Your task to perform on an android device: Set the phone to "Do not disturb". Image 0: 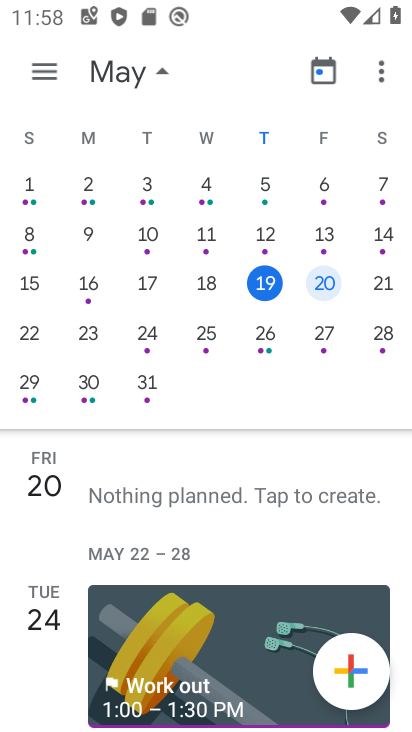
Step 0: press home button
Your task to perform on an android device: Set the phone to "Do not disturb". Image 1: 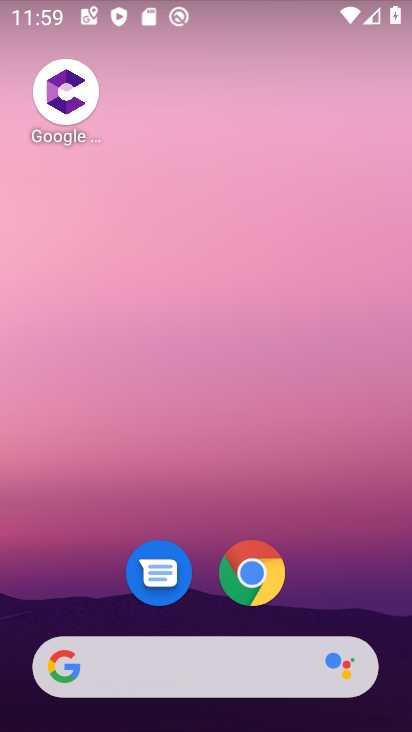
Step 1: drag from (224, 724) to (204, 242)
Your task to perform on an android device: Set the phone to "Do not disturb". Image 2: 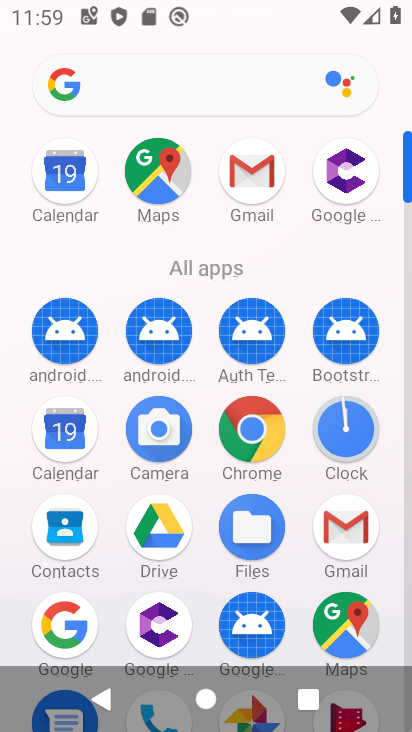
Step 2: drag from (194, 533) to (195, 251)
Your task to perform on an android device: Set the phone to "Do not disturb". Image 3: 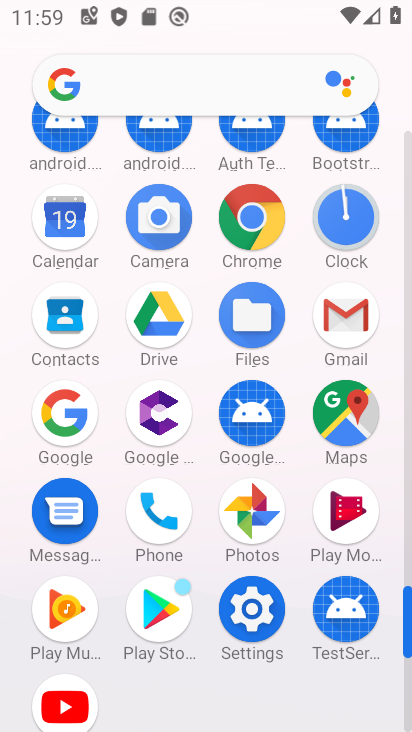
Step 3: click (242, 606)
Your task to perform on an android device: Set the phone to "Do not disturb". Image 4: 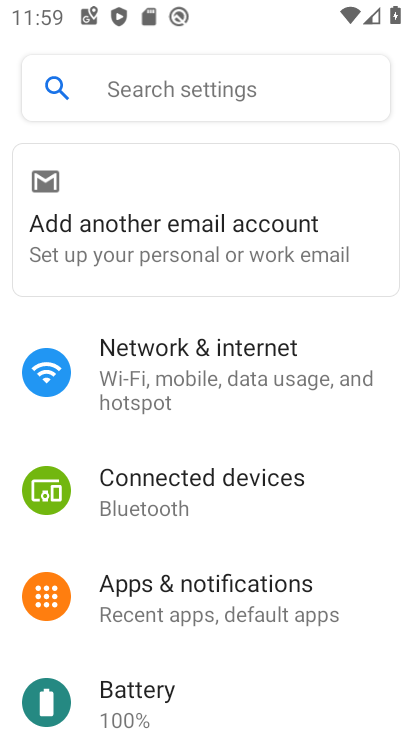
Step 4: drag from (211, 692) to (178, 294)
Your task to perform on an android device: Set the phone to "Do not disturb". Image 5: 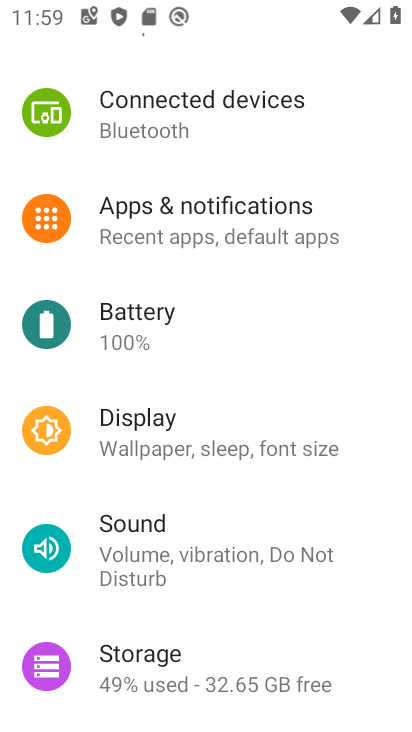
Step 5: drag from (165, 647) to (159, 394)
Your task to perform on an android device: Set the phone to "Do not disturb". Image 6: 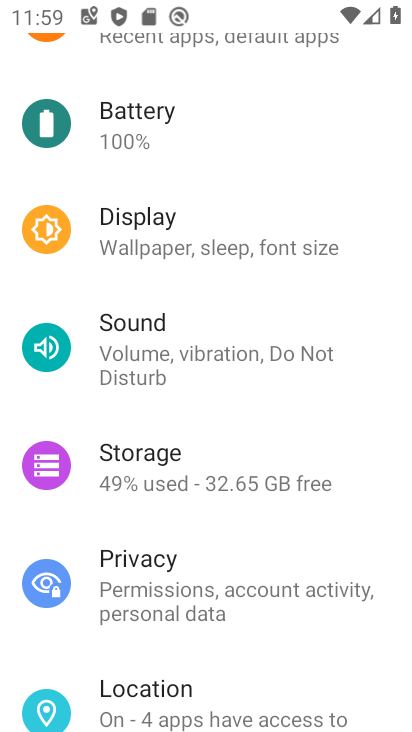
Step 6: click (177, 356)
Your task to perform on an android device: Set the phone to "Do not disturb". Image 7: 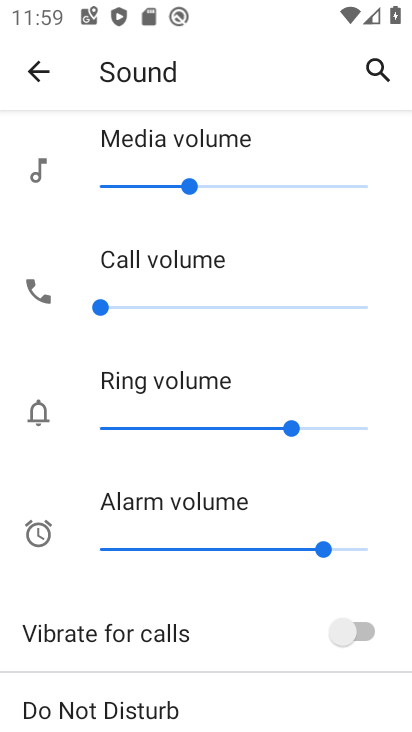
Step 7: drag from (149, 662) to (152, 346)
Your task to perform on an android device: Set the phone to "Do not disturb". Image 8: 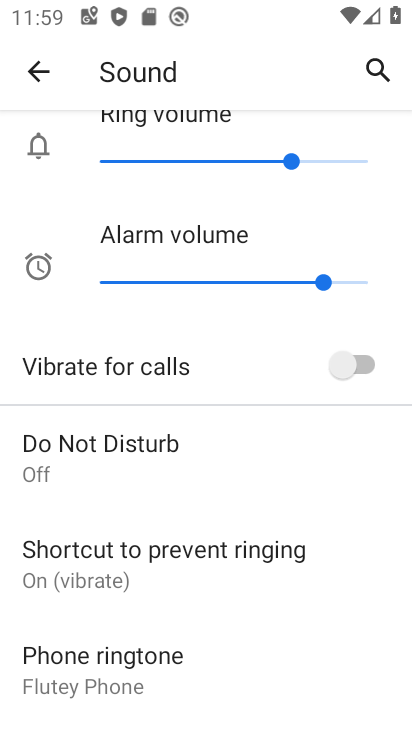
Step 8: click (94, 451)
Your task to perform on an android device: Set the phone to "Do not disturb". Image 9: 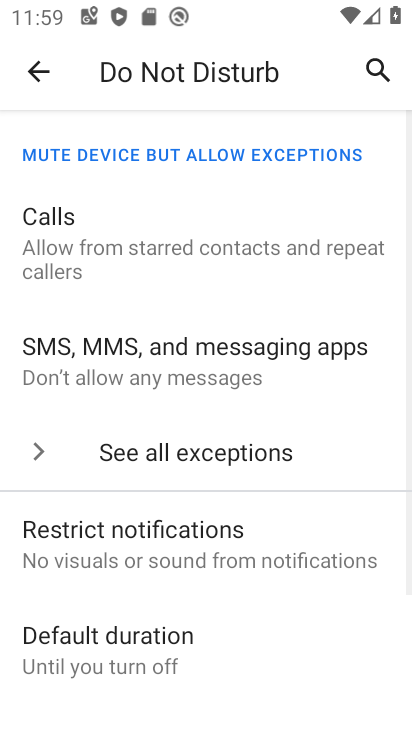
Step 9: drag from (170, 666) to (172, 217)
Your task to perform on an android device: Set the phone to "Do not disturb". Image 10: 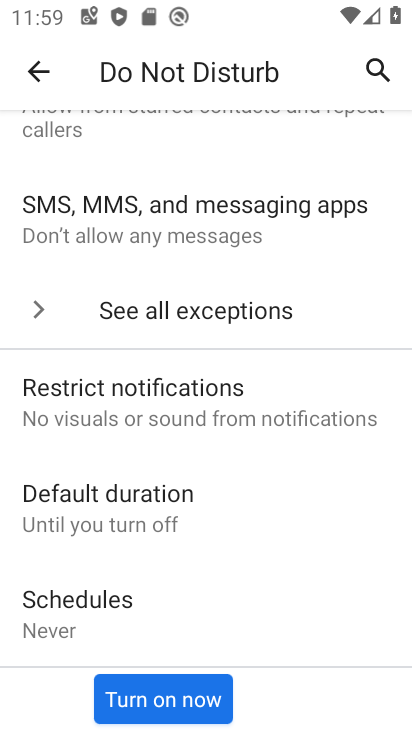
Step 10: click (178, 694)
Your task to perform on an android device: Set the phone to "Do not disturb". Image 11: 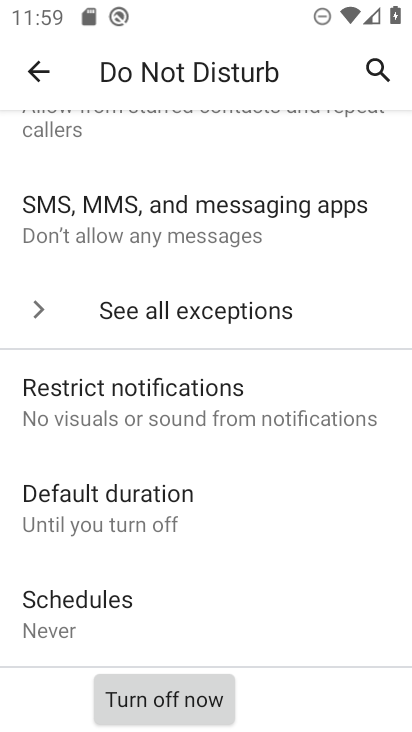
Step 11: task complete